Your task to perform on an android device: Go to Google Image 0: 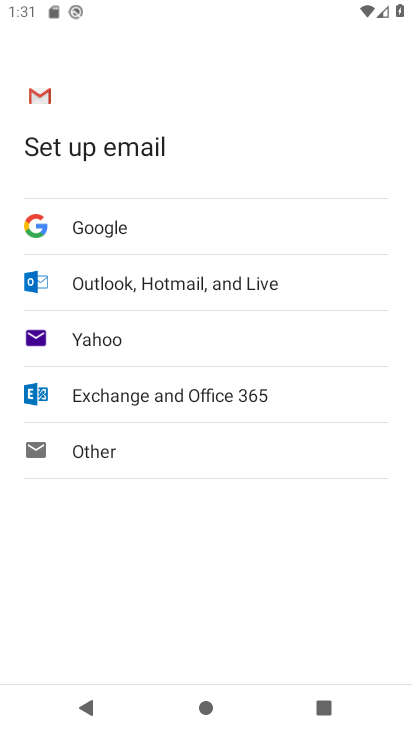
Step 0: press back button
Your task to perform on an android device: Go to Google Image 1: 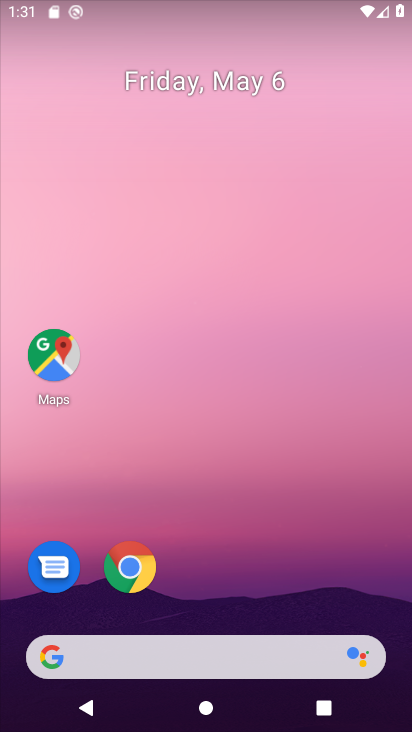
Step 1: drag from (234, 524) to (262, 101)
Your task to perform on an android device: Go to Google Image 2: 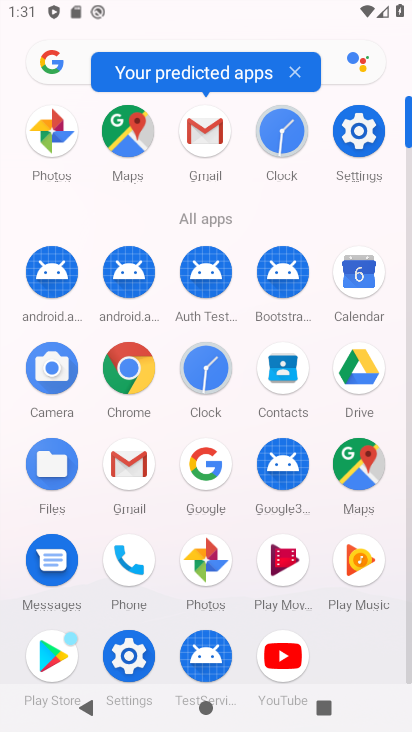
Step 2: click (203, 464)
Your task to perform on an android device: Go to Google Image 3: 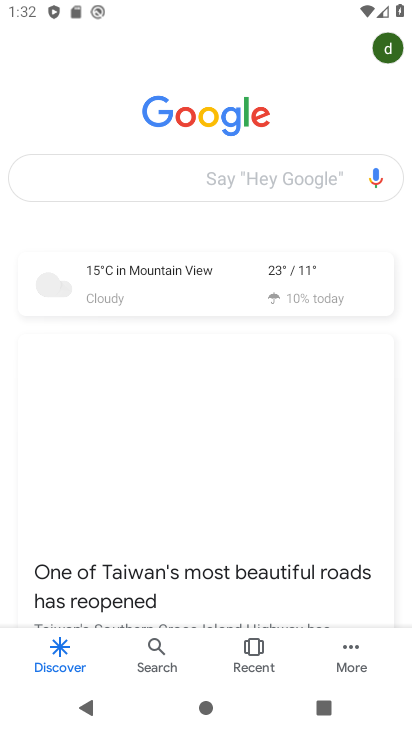
Step 3: task complete